Your task to perform on an android device: Open network settings Image 0: 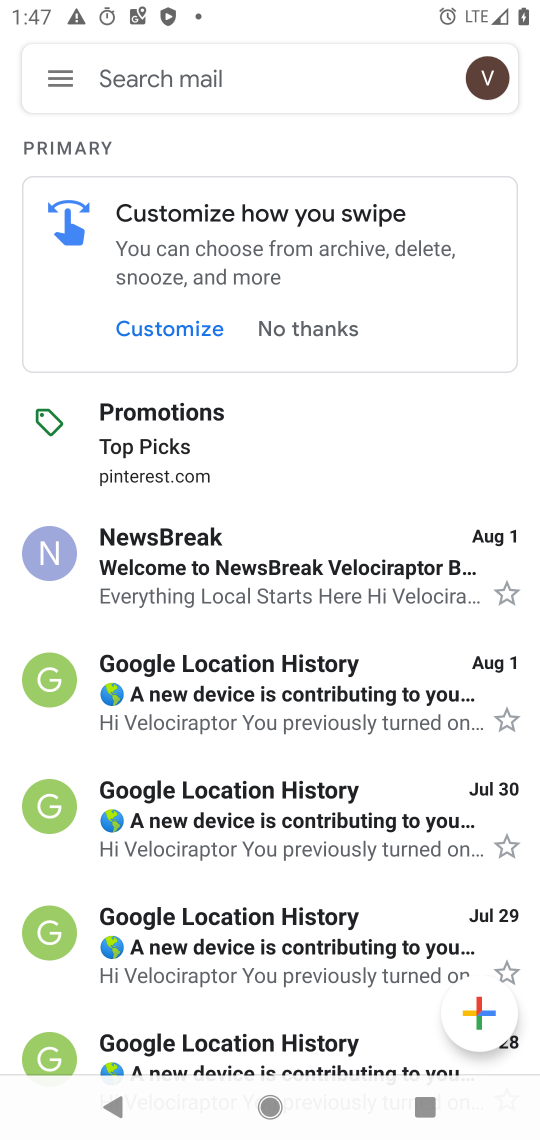
Step 0: press home button
Your task to perform on an android device: Open network settings Image 1: 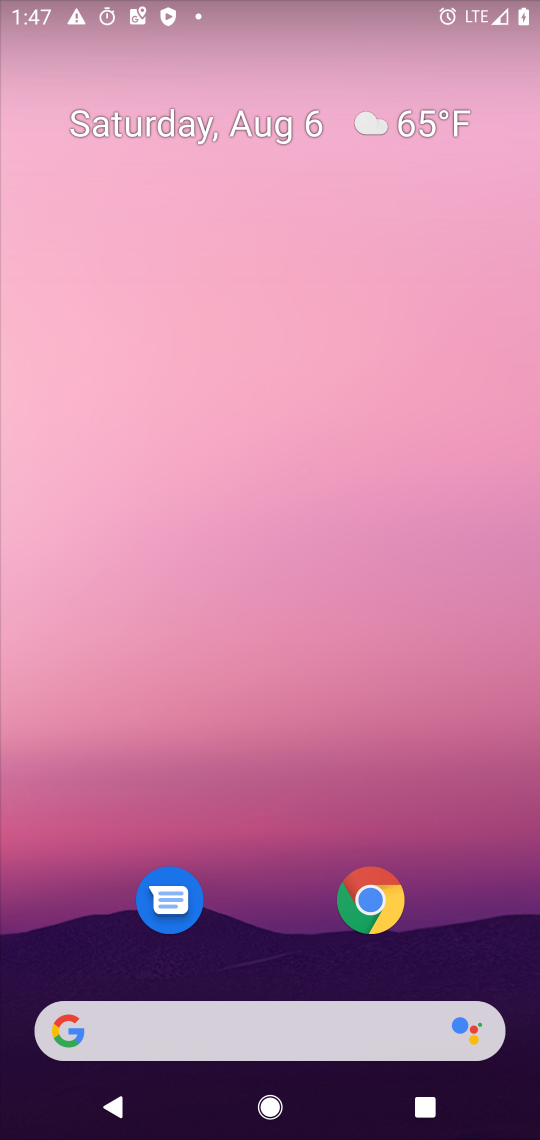
Step 1: drag from (283, 954) to (274, 200)
Your task to perform on an android device: Open network settings Image 2: 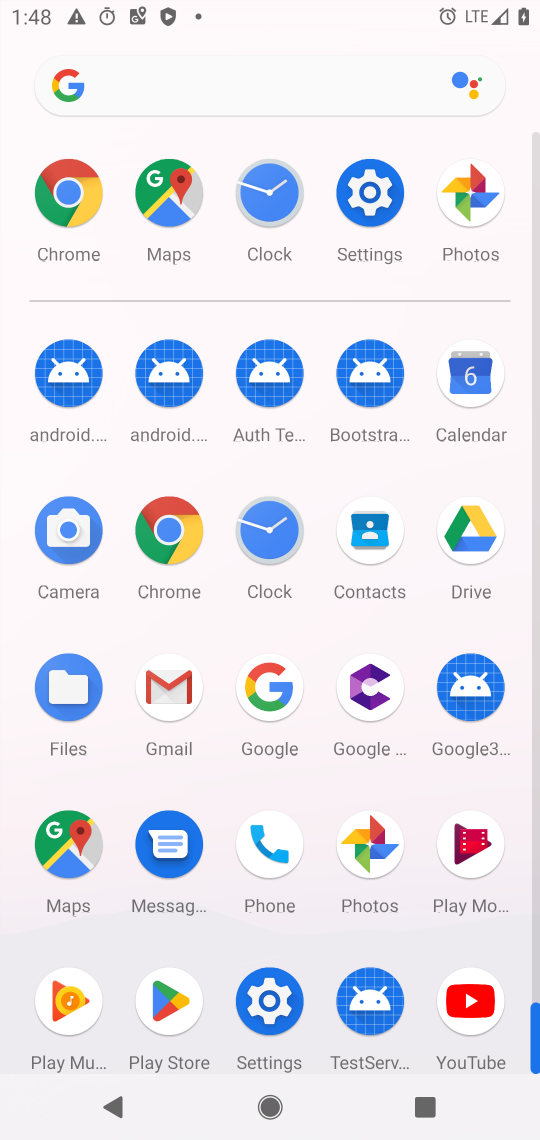
Step 2: click (371, 180)
Your task to perform on an android device: Open network settings Image 3: 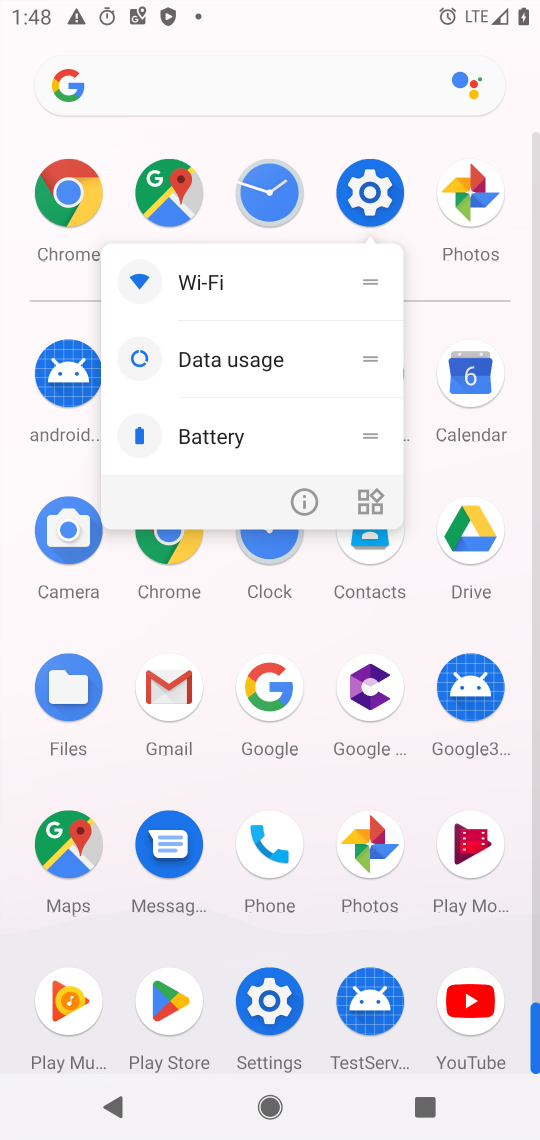
Step 3: click (368, 184)
Your task to perform on an android device: Open network settings Image 4: 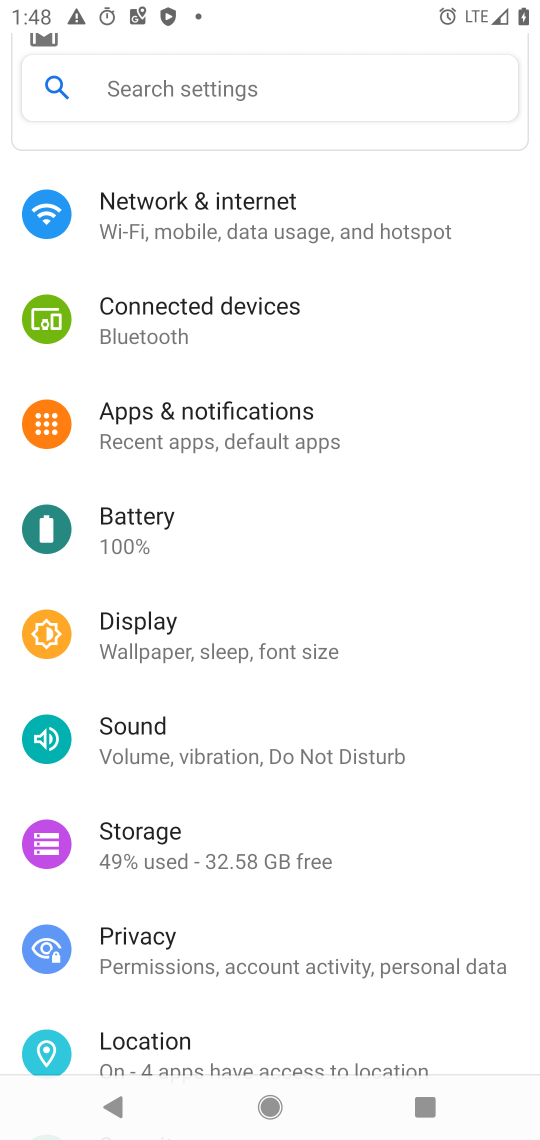
Step 4: click (189, 207)
Your task to perform on an android device: Open network settings Image 5: 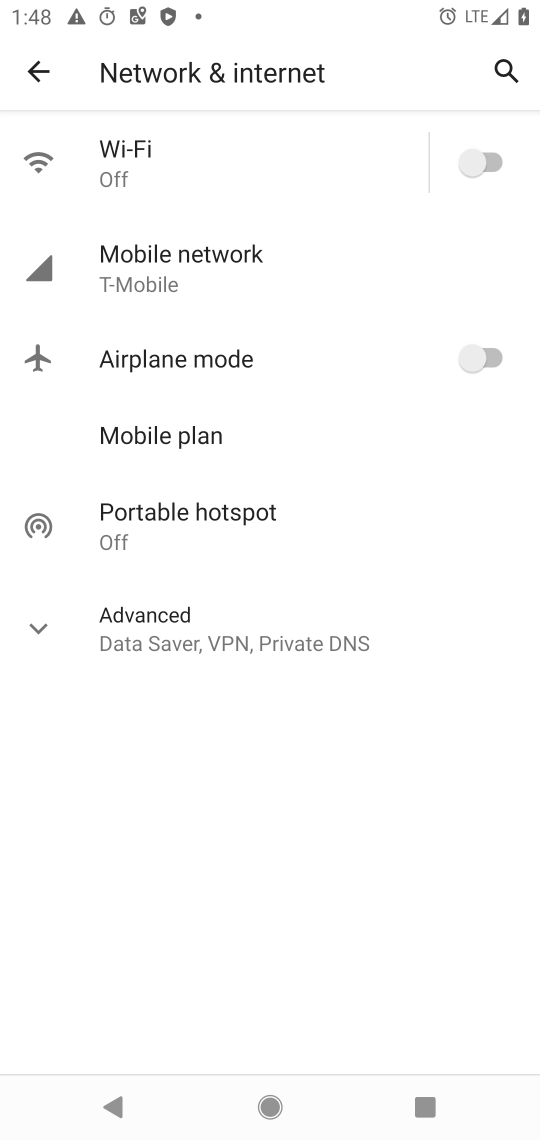
Step 5: click (125, 255)
Your task to perform on an android device: Open network settings Image 6: 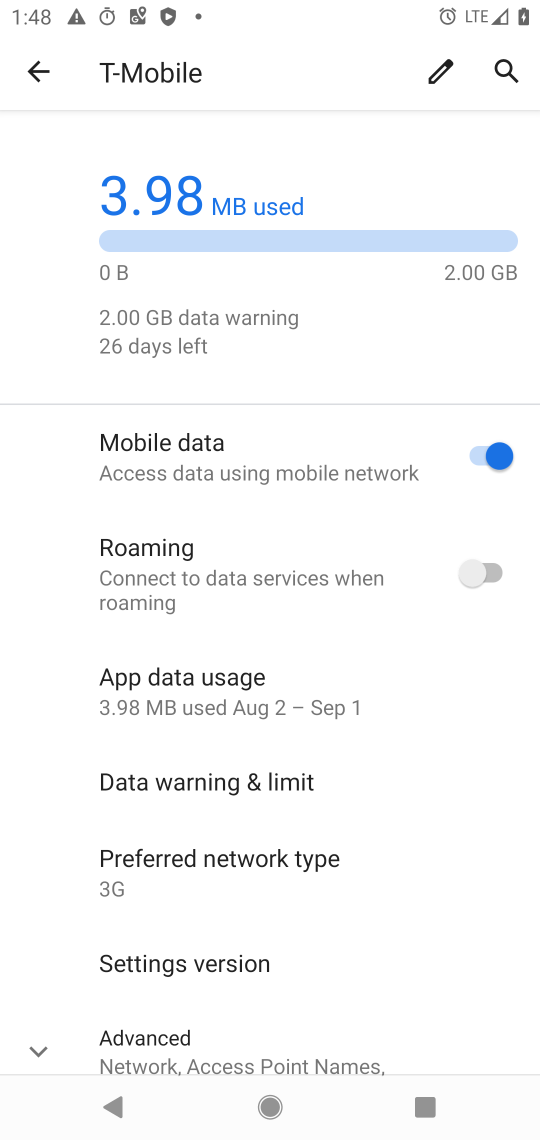
Step 6: task complete